Your task to perform on an android device: Open sound settings Image 0: 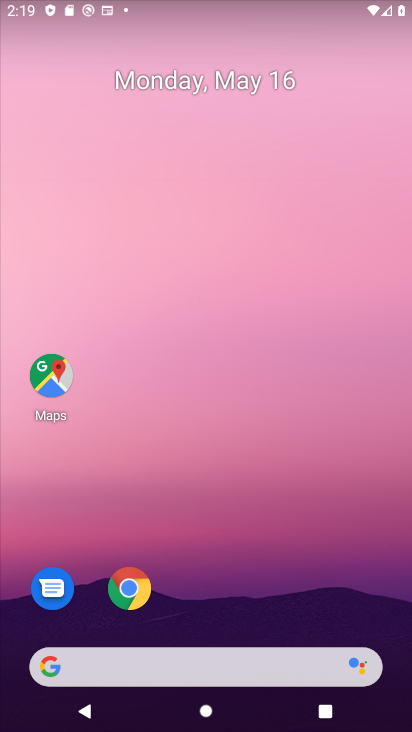
Step 0: click (372, 164)
Your task to perform on an android device: Open sound settings Image 1: 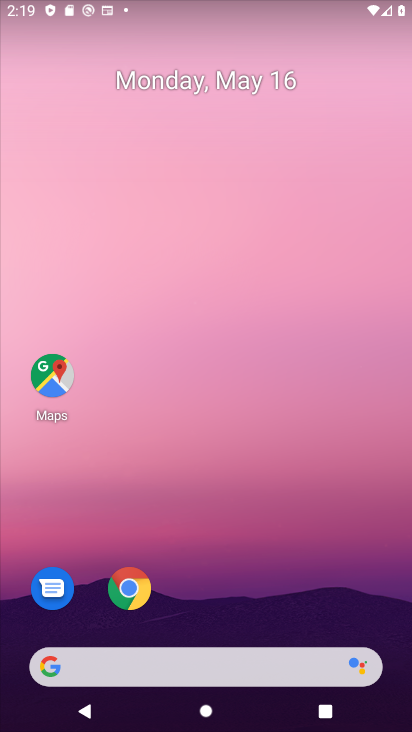
Step 1: drag from (170, 640) to (262, 104)
Your task to perform on an android device: Open sound settings Image 2: 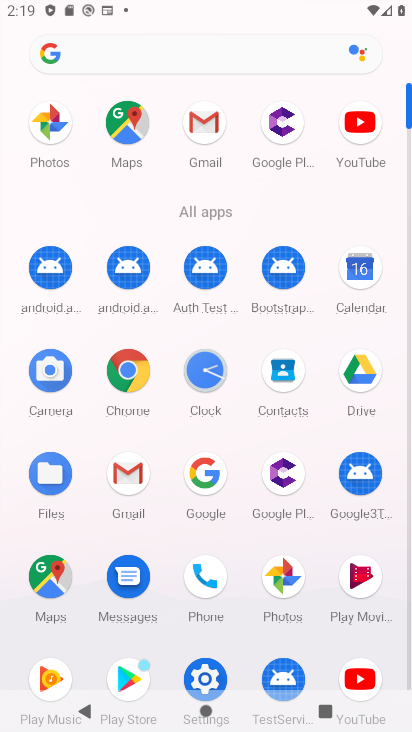
Step 2: drag from (230, 547) to (276, 378)
Your task to perform on an android device: Open sound settings Image 3: 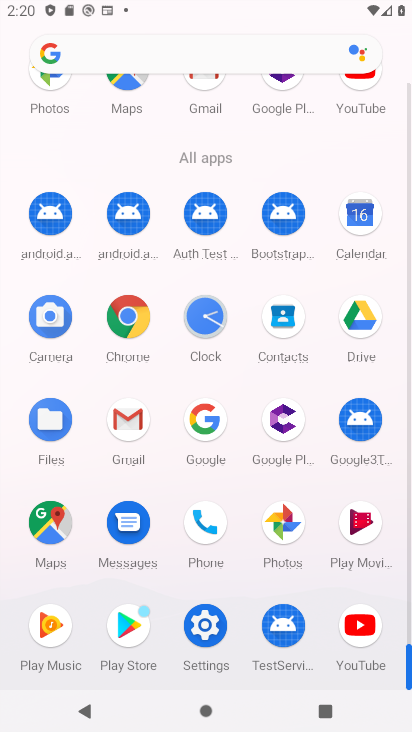
Step 3: click (198, 637)
Your task to perform on an android device: Open sound settings Image 4: 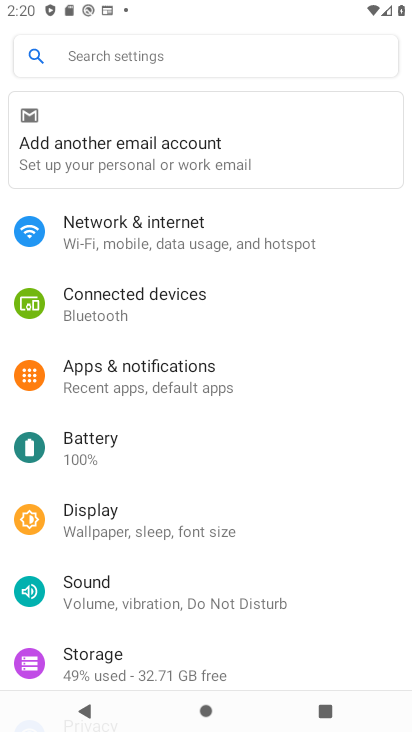
Step 4: click (116, 590)
Your task to perform on an android device: Open sound settings Image 5: 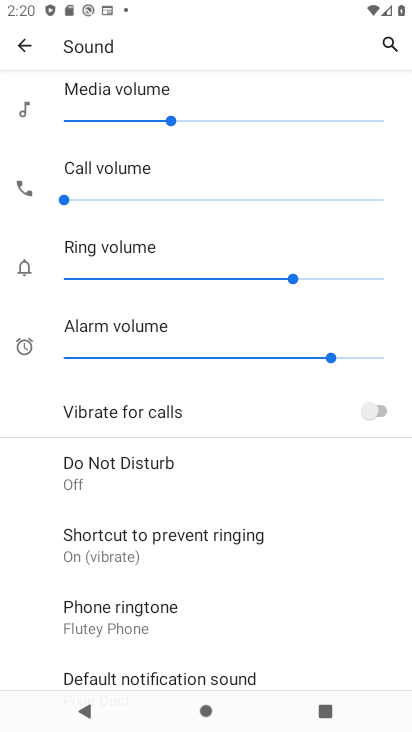
Step 5: task complete